Your task to perform on an android device: How much does a 2 bedroom apartment rent for in Seattle? Image 0: 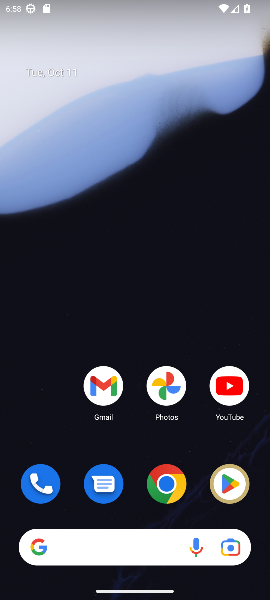
Step 0: click (167, 488)
Your task to perform on an android device: How much does a 2 bedroom apartment rent for in Seattle? Image 1: 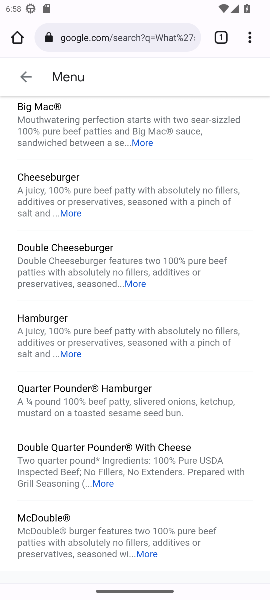
Step 1: click (142, 35)
Your task to perform on an android device: How much does a 2 bedroom apartment rent for in Seattle? Image 2: 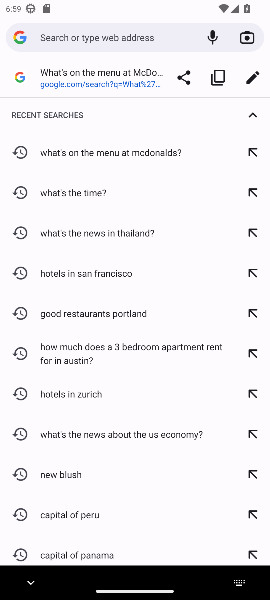
Step 2: type "How much does a 2 bedroom apartment rent for in Seattle?"
Your task to perform on an android device: How much does a 2 bedroom apartment rent for in Seattle? Image 3: 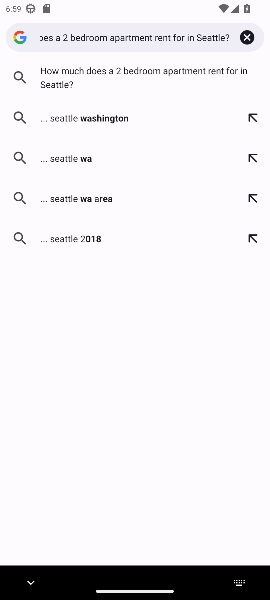
Step 3: click (103, 70)
Your task to perform on an android device: How much does a 2 bedroom apartment rent for in Seattle? Image 4: 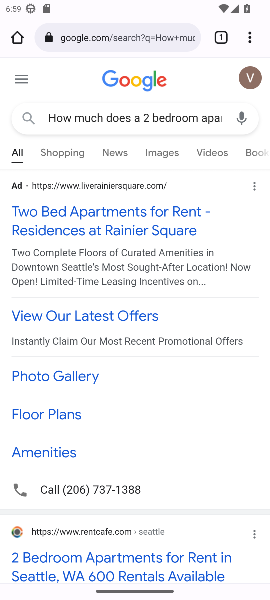
Step 4: drag from (153, 557) to (216, 425)
Your task to perform on an android device: How much does a 2 bedroom apartment rent for in Seattle? Image 5: 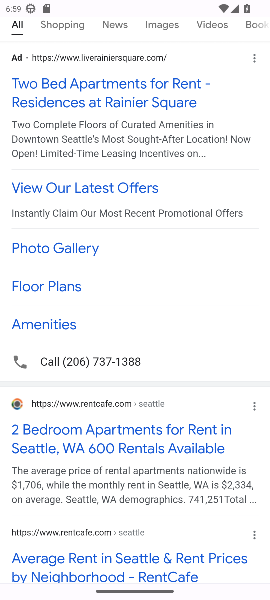
Step 5: click (146, 441)
Your task to perform on an android device: How much does a 2 bedroom apartment rent for in Seattle? Image 6: 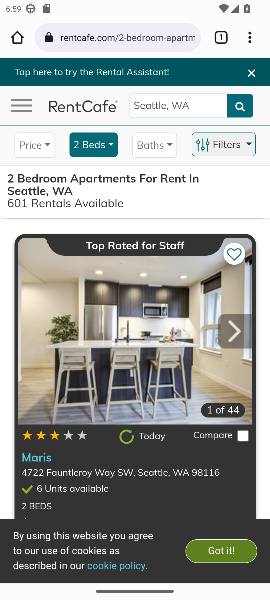
Step 6: task complete